Your task to perform on an android device: move an email to a new category in the gmail app Image 0: 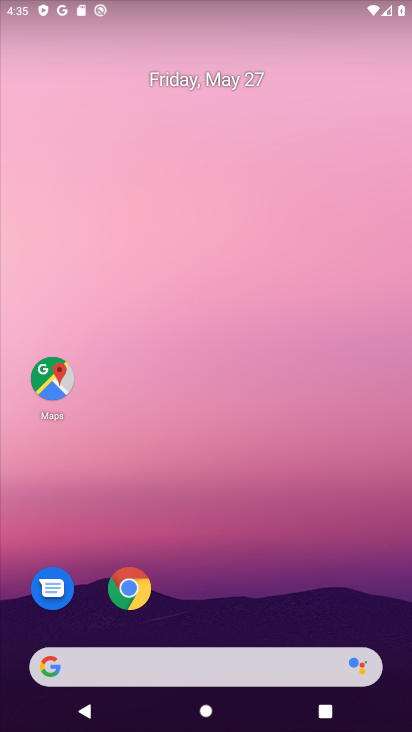
Step 0: drag from (187, 611) to (333, 32)
Your task to perform on an android device: move an email to a new category in the gmail app Image 1: 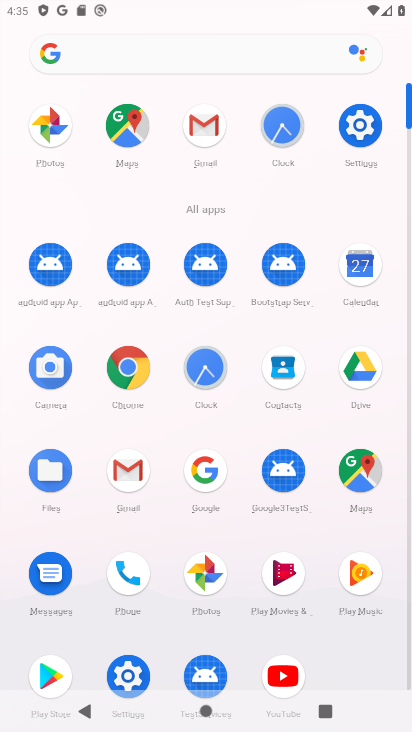
Step 1: drag from (220, 584) to (270, 283)
Your task to perform on an android device: move an email to a new category in the gmail app Image 2: 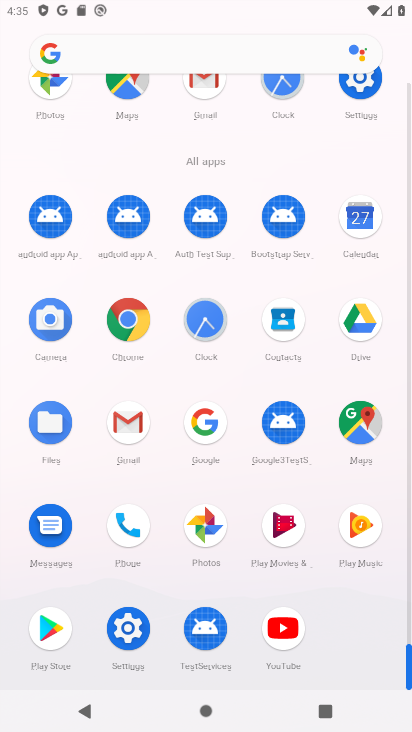
Step 2: click (123, 419)
Your task to perform on an android device: move an email to a new category in the gmail app Image 3: 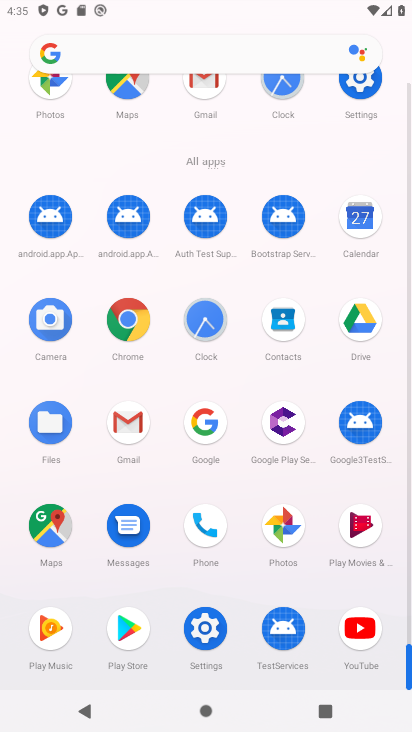
Step 3: click (150, 429)
Your task to perform on an android device: move an email to a new category in the gmail app Image 4: 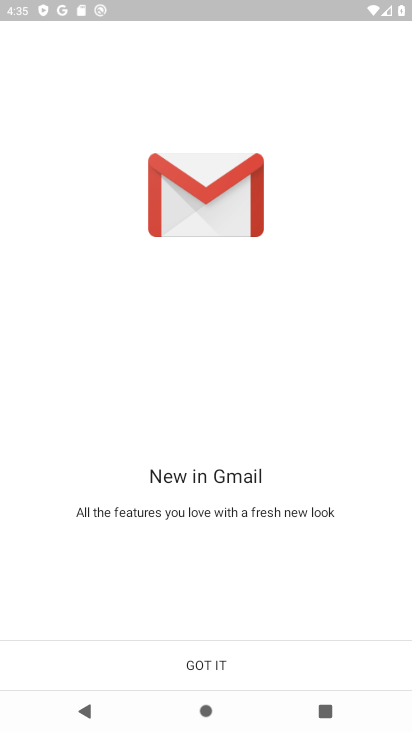
Step 4: click (277, 658)
Your task to perform on an android device: move an email to a new category in the gmail app Image 5: 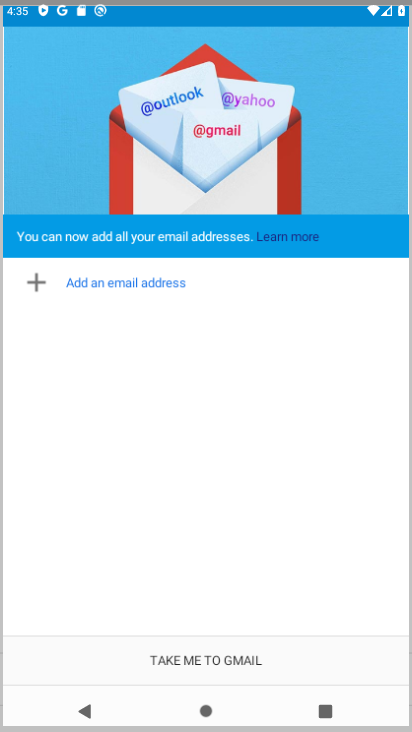
Step 5: click (269, 658)
Your task to perform on an android device: move an email to a new category in the gmail app Image 6: 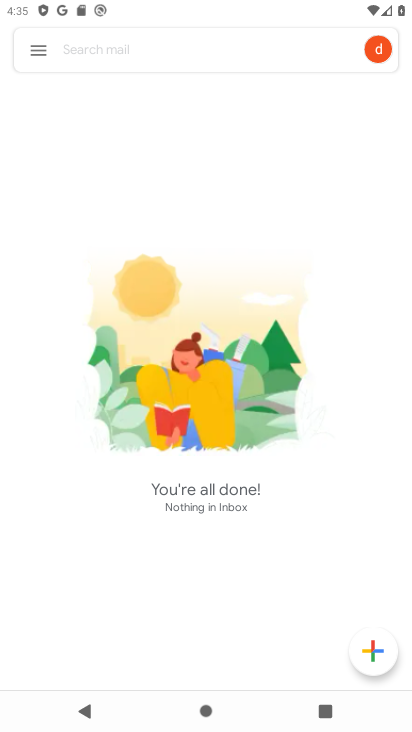
Step 6: click (47, 58)
Your task to perform on an android device: move an email to a new category in the gmail app Image 7: 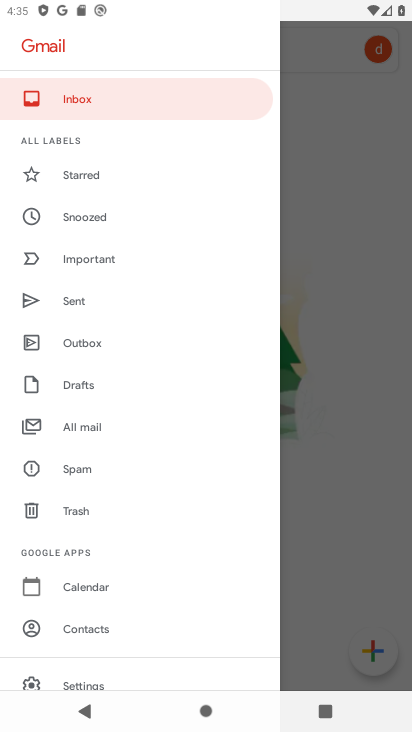
Step 7: click (126, 428)
Your task to perform on an android device: move an email to a new category in the gmail app Image 8: 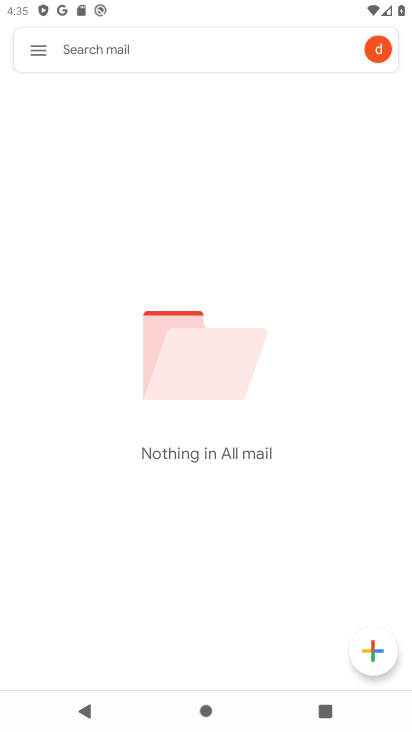
Step 8: task complete